Your task to perform on an android device: Go to Reddit.com Image 0: 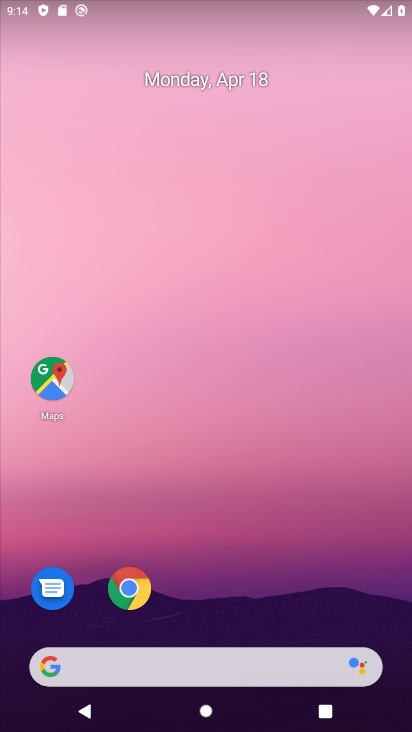
Step 0: drag from (246, 602) to (268, 61)
Your task to perform on an android device: Go to Reddit.com Image 1: 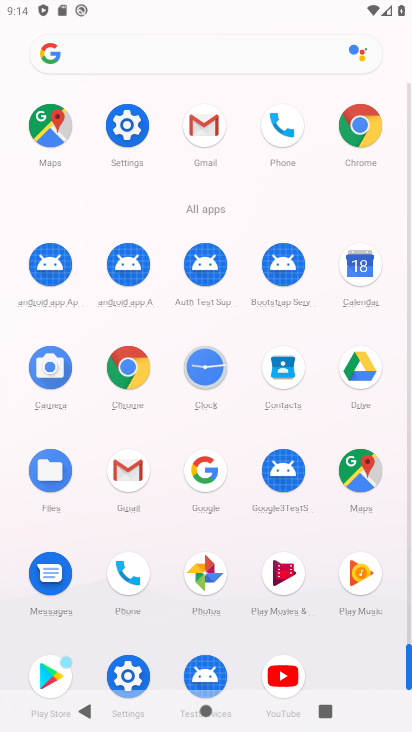
Step 1: click (134, 378)
Your task to perform on an android device: Go to Reddit.com Image 2: 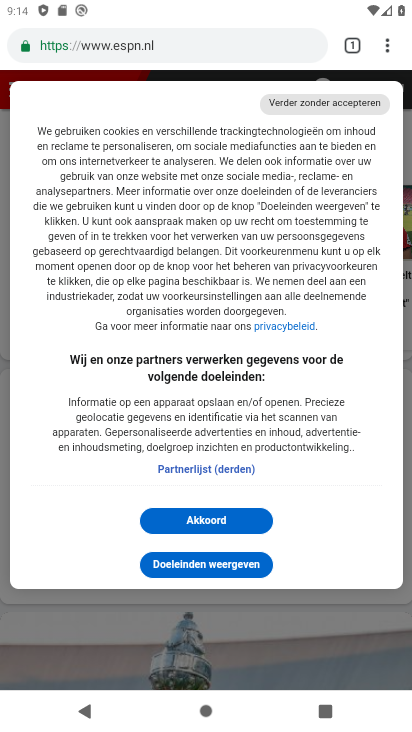
Step 2: press home button
Your task to perform on an android device: Go to Reddit.com Image 3: 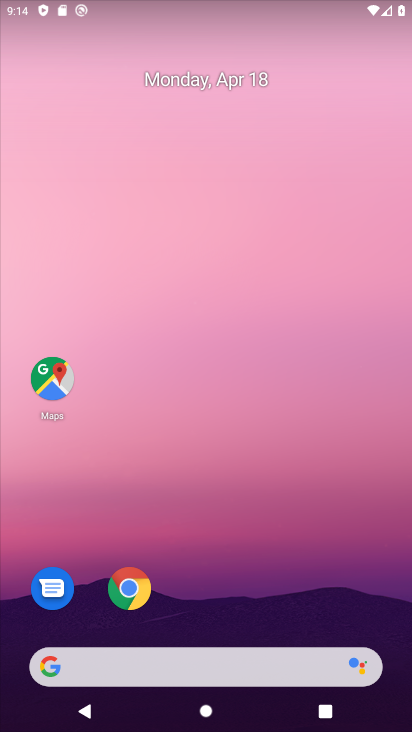
Step 3: drag from (225, 520) to (275, 3)
Your task to perform on an android device: Go to Reddit.com Image 4: 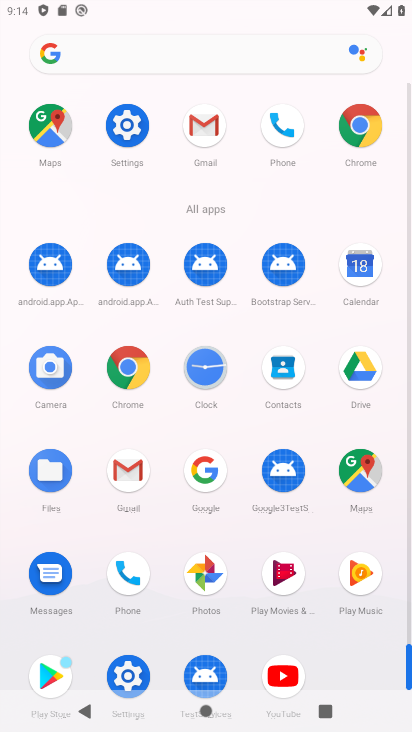
Step 4: click (121, 362)
Your task to perform on an android device: Go to Reddit.com Image 5: 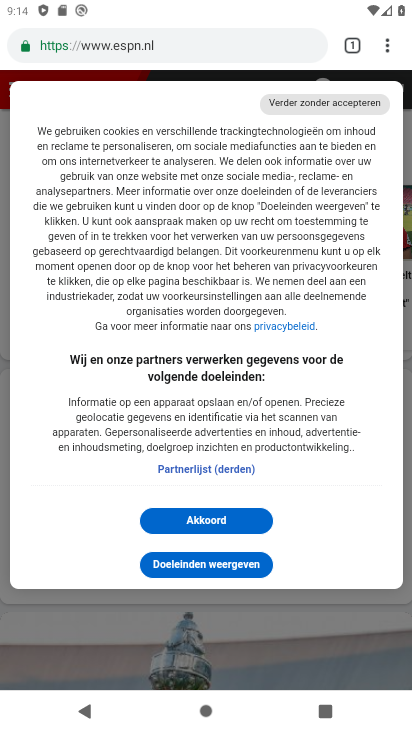
Step 5: drag from (382, 44) to (222, 89)
Your task to perform on an android device: Go to Reddit.com Image 6: 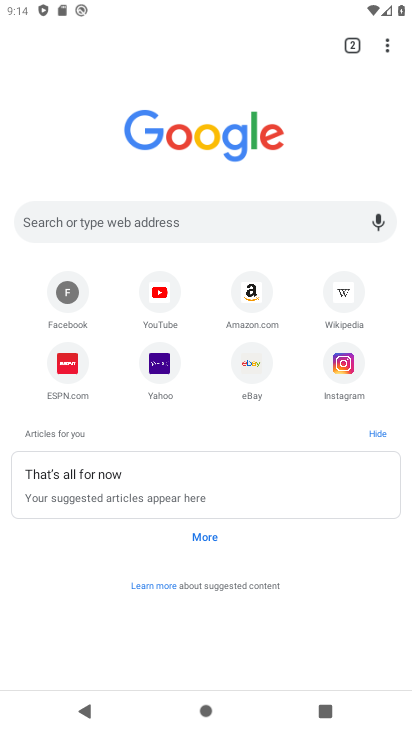
Step 6: click (203, 218)
Your task to perform on an android device: Go to Reddit.com Image 7: 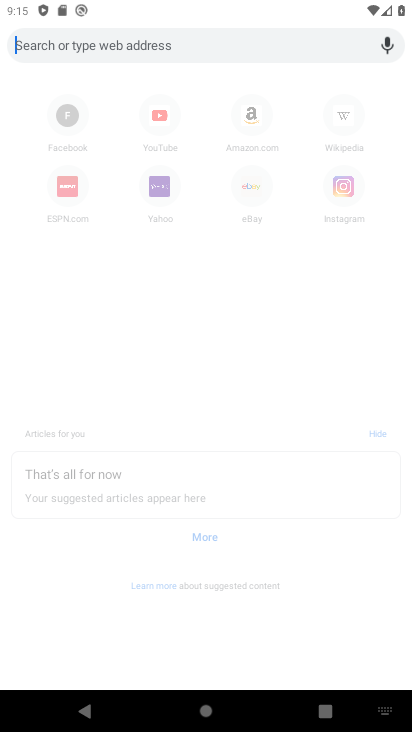
Step 7: type " Reddit.com"
Your task to perform on an android device: Go to Reddit.com Image 8: 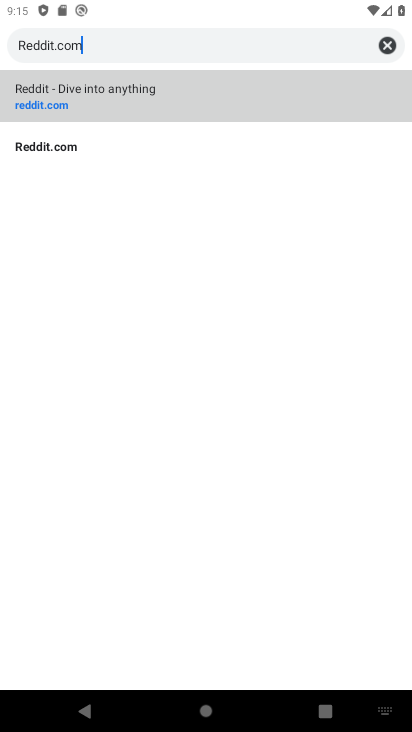
Step 8: click (38, 106)
Your task to perform on an android device: Go to Reddit.com Image 9: 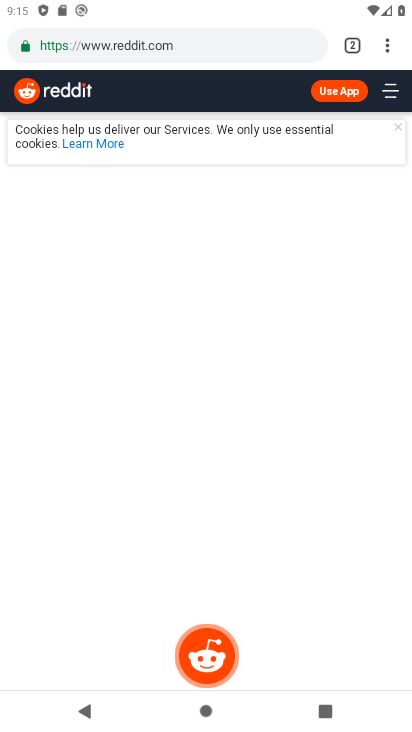
Step 9: task complete